Your task to perform on an android device: uninstall "Walmart Shopping & Grocery" Image 0: 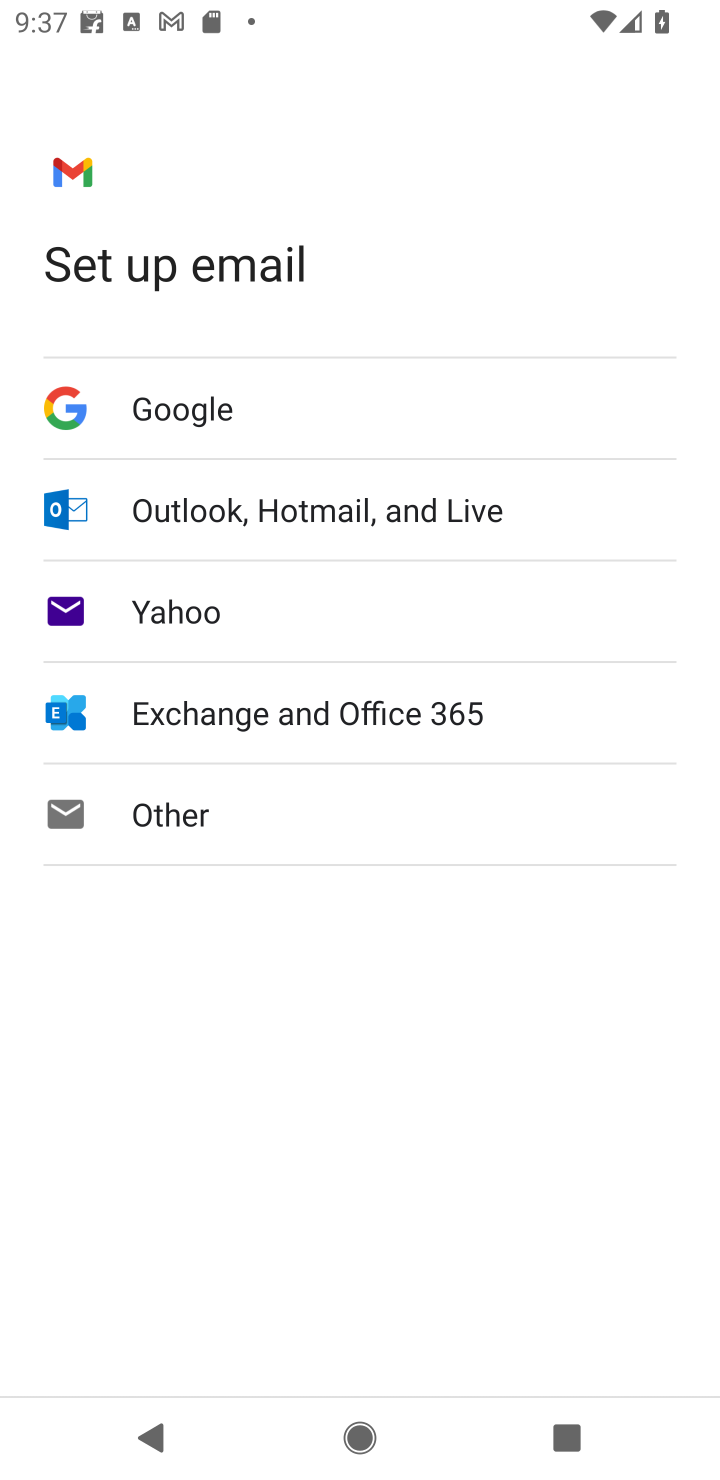
Step 0: press home button
Your task to perform on an android device: uninstall "Walmart Shopping & Grocery" Image 1: 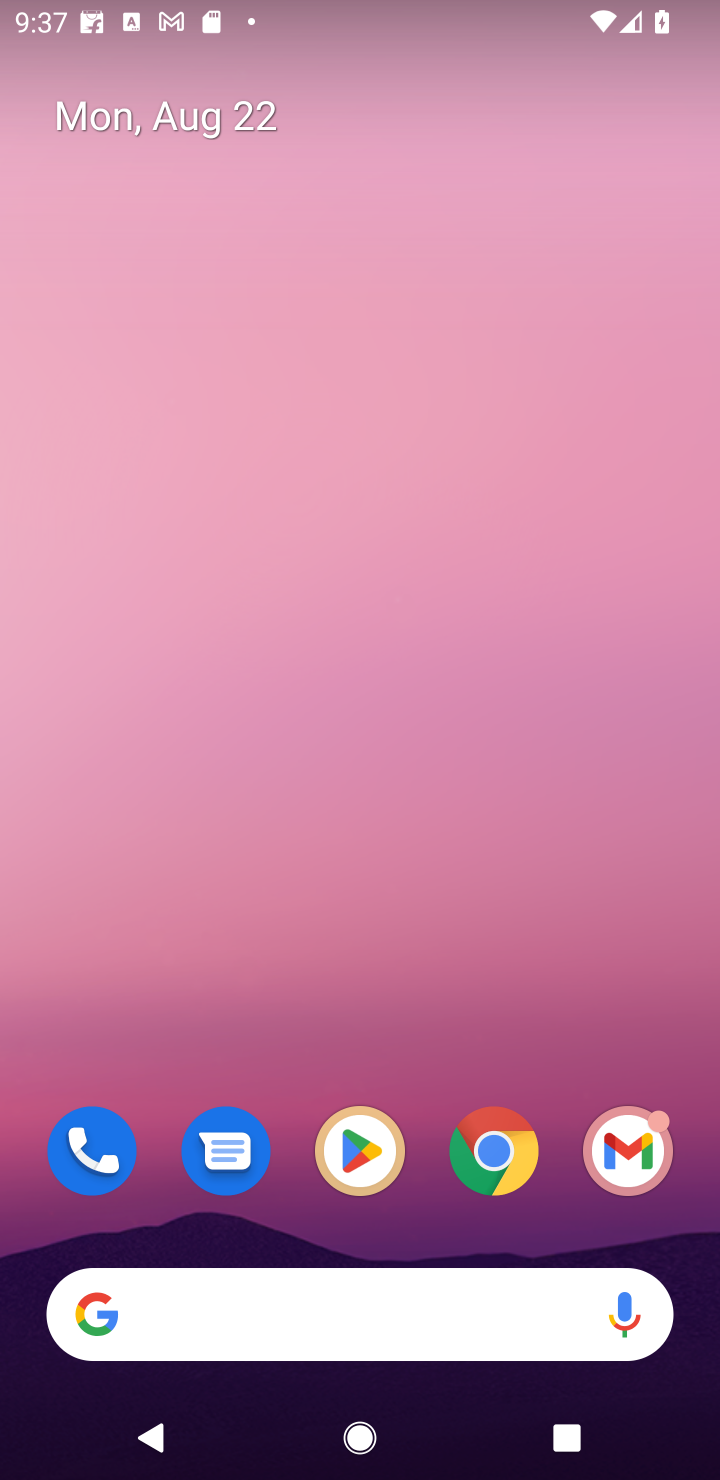
Step 1: click (355, 1150)
Your task to perform on an android device: uninstall "Walmart Shopping & Grocery" Image 2: 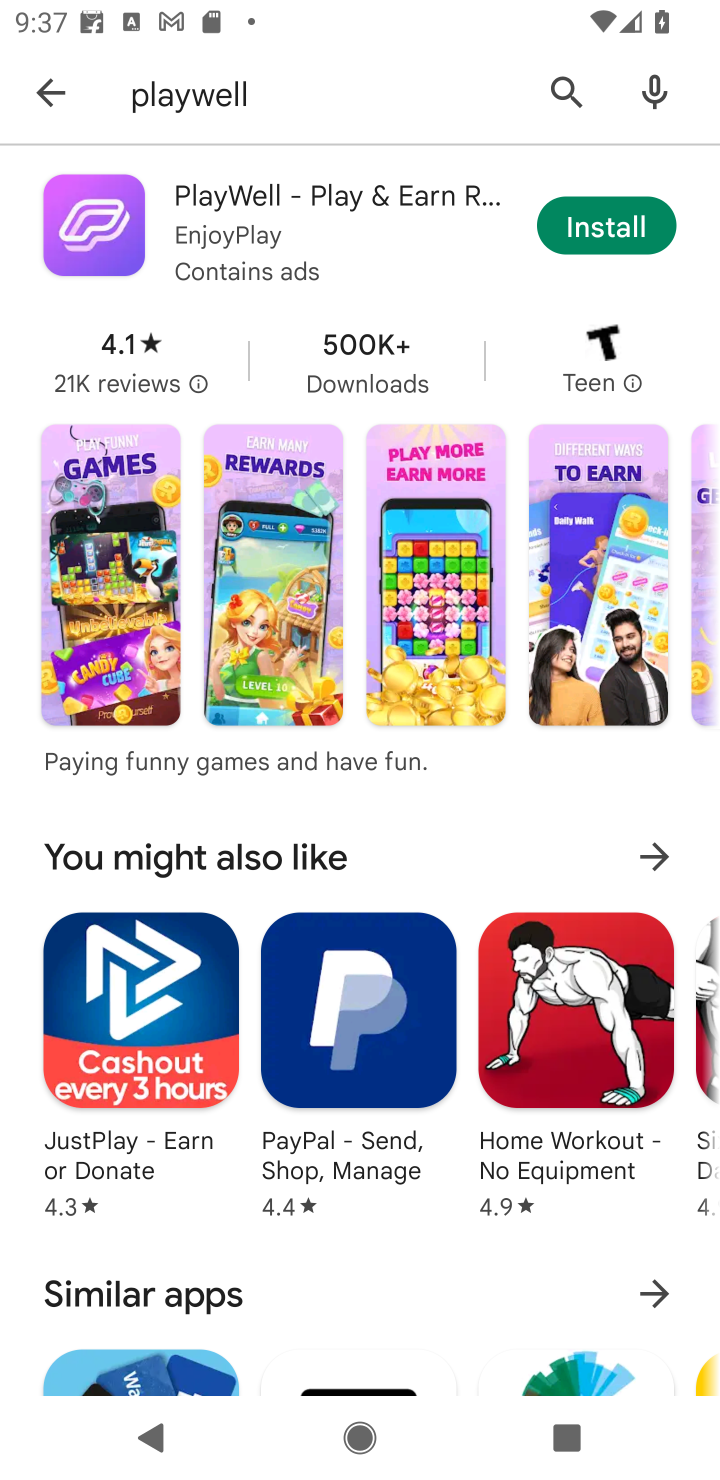
Step 2: click (574, 81)
Your task to perform on an android device: uninstall "Walmart Shopping & Grocery" Image 3: 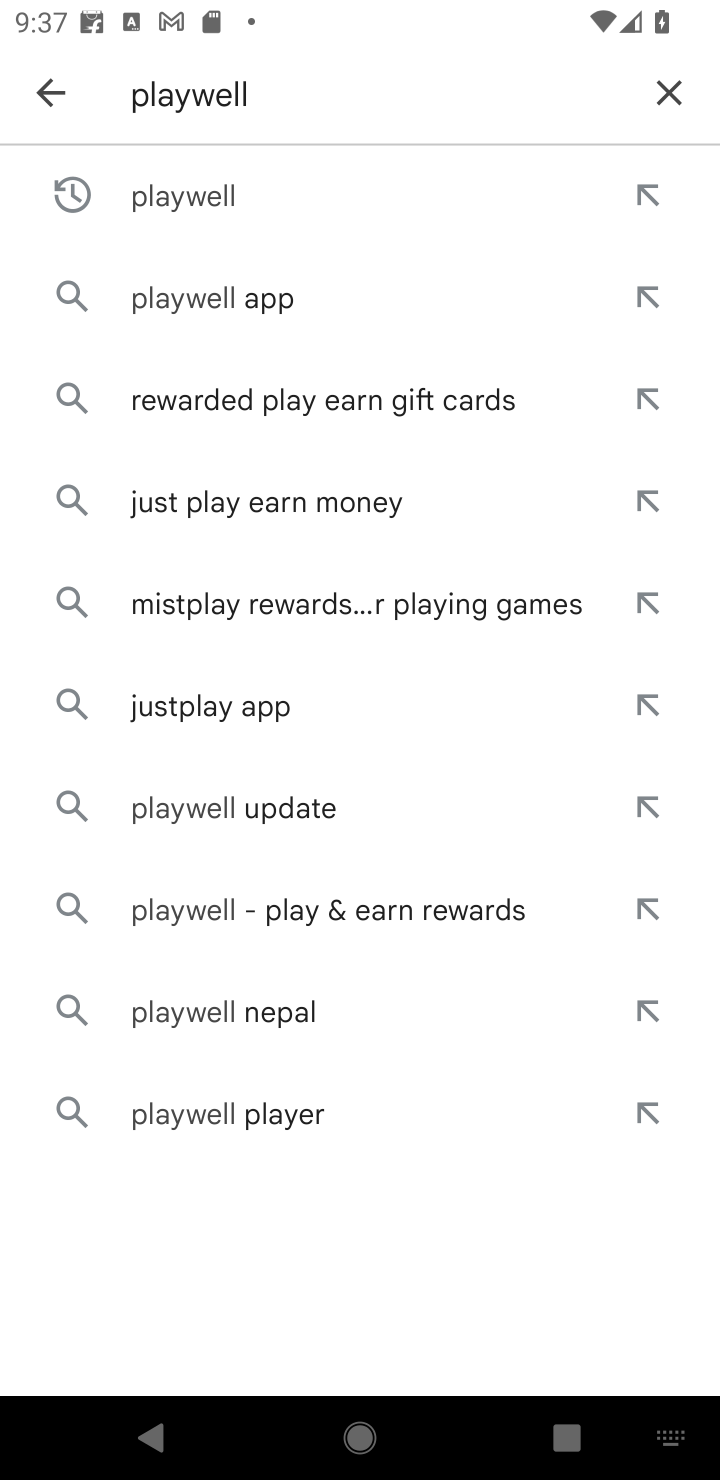
Step 3: click (660, 86)
Your task to perform on an android device: uninstall "Walmart Shopping & Grocery" Image 4: 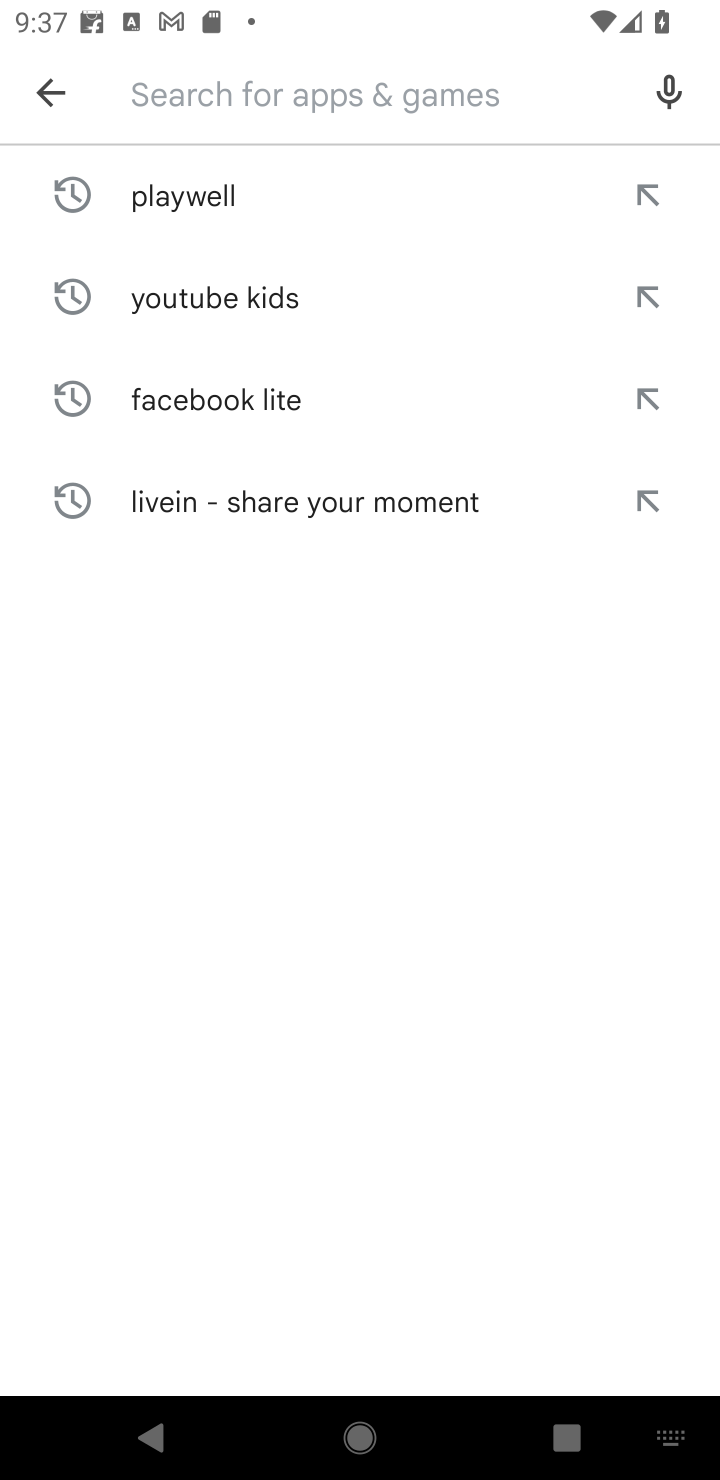
Step 4: type "Walmart Shopping & Grocery"
Your task to perform on an android device: uninstall "Walmart Shopping & Grocery" Image 5: 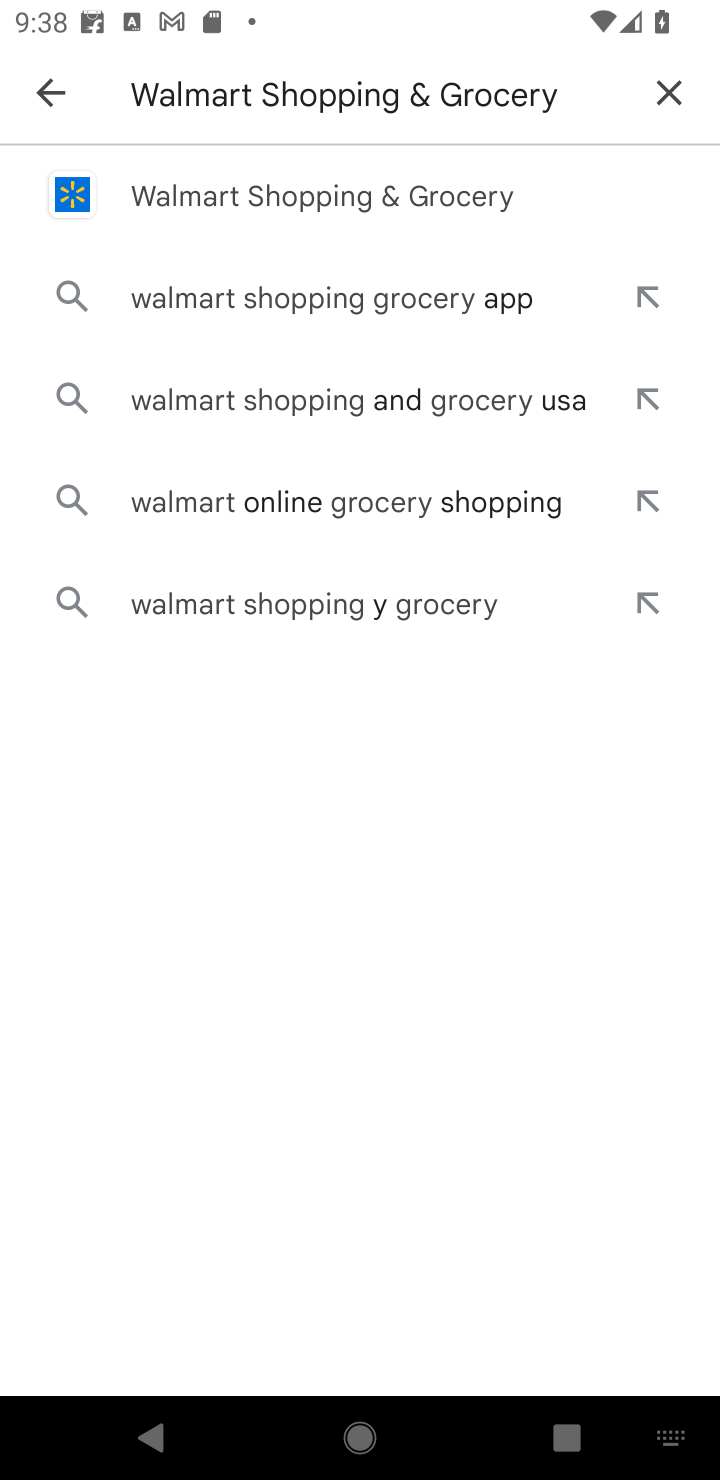
Step 5: click (273, 202)
Your task to perform on an android device: uninstall "Walmart Shopping & Grocery" Image 6: 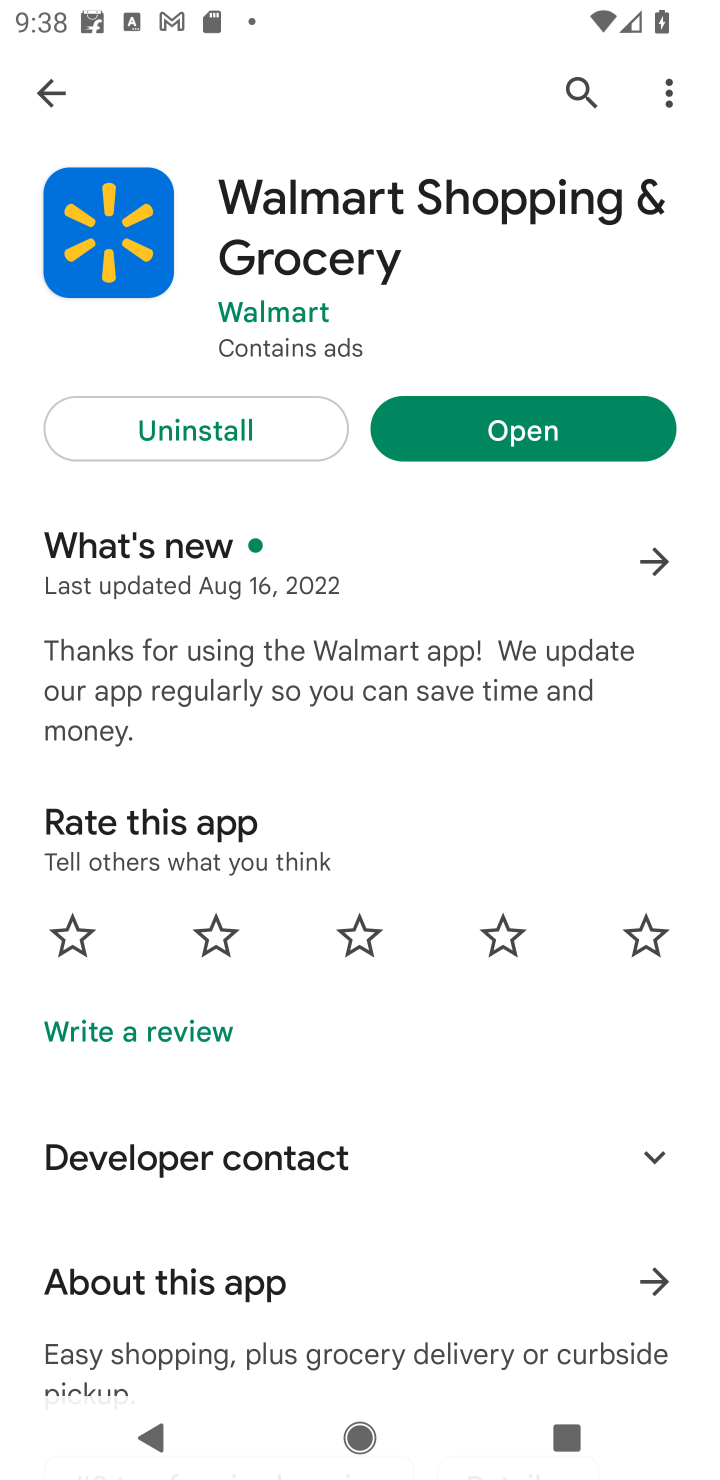
Step 6: click (240, 417)
Your task to perform on an android device: uninstall "Walmart Shopping & Grocery" Image 7: 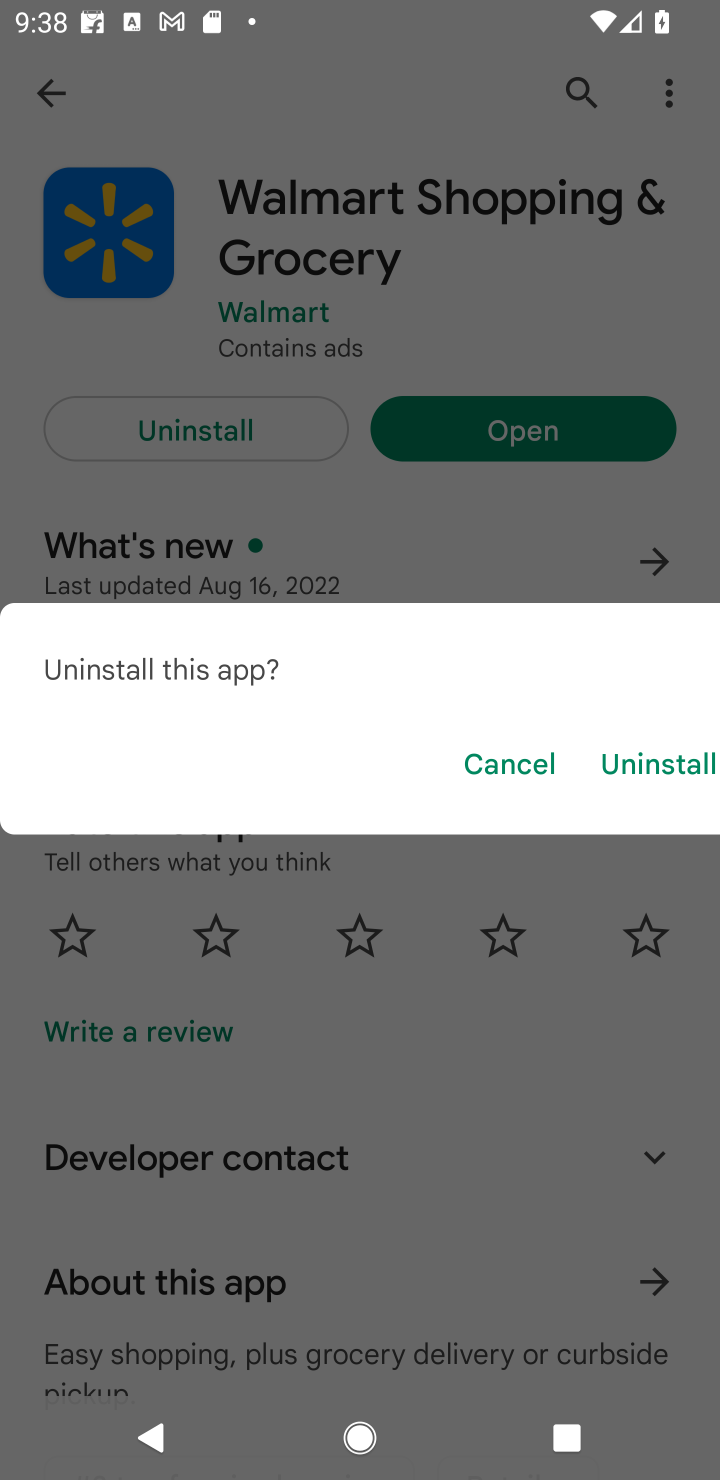
Step 7: click (654, 768)
Your task to perform on an android device: uninstall "Walmart Shopping & Grocery" Image 8: 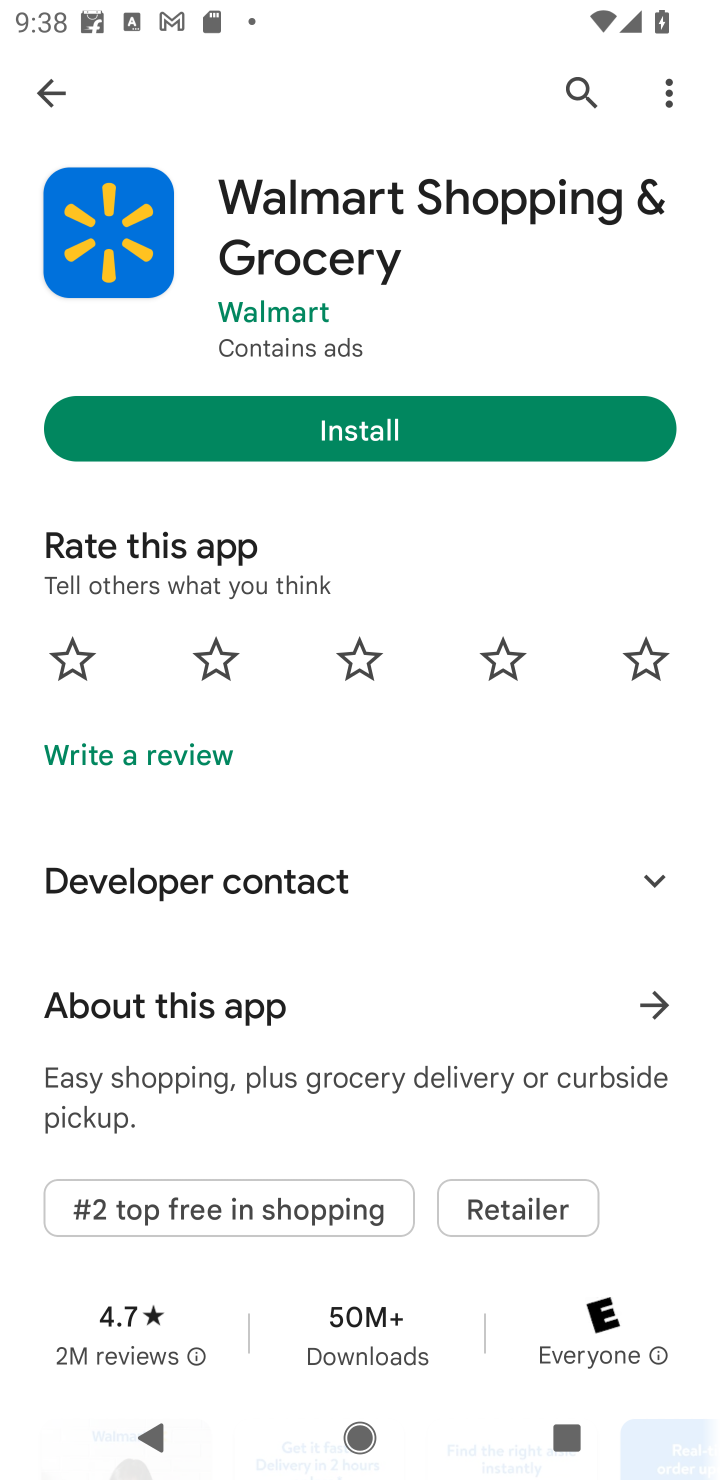
Step 8: task complete